Your task to perform on an android device: change the clock display to show seconds Image 0: 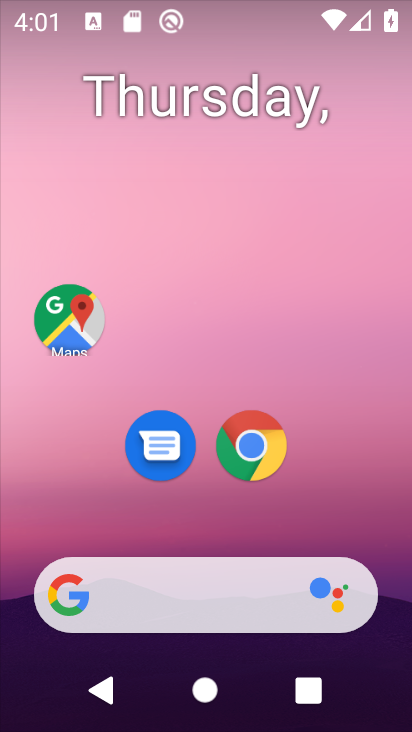
Step 0: drag from (310, 355) to (289, 50)
Your task to perform on an android device: change the clock display to show seconds Image 1: 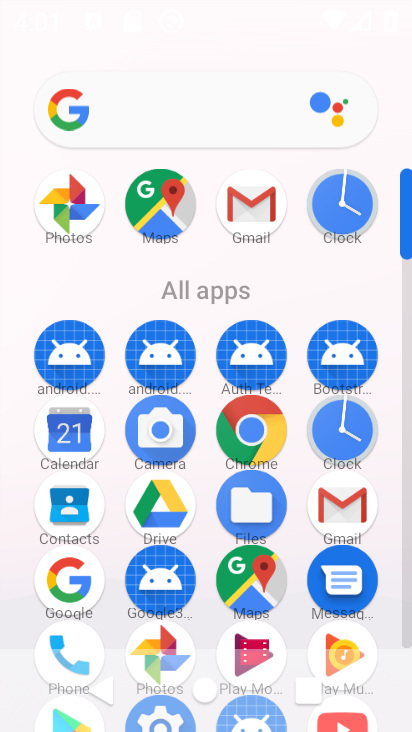
Step 1: drag from (336, 464) to (341, 0)
Your task to perform on an android device: change the clock display to show seconds Image 2: 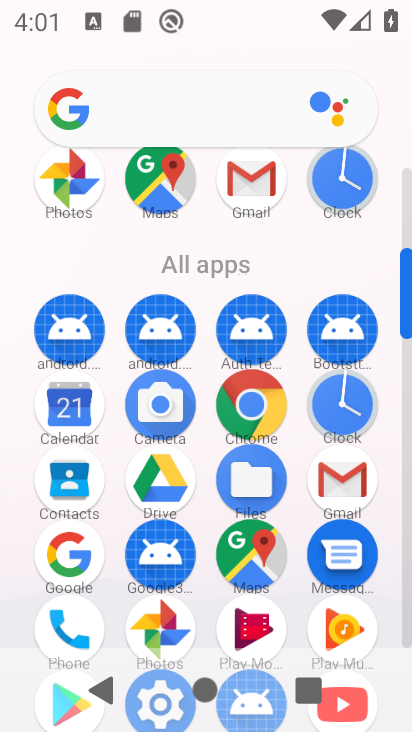
Step 2: click (348, 180)
Your task to perform on an android device: change the clock display to show seconds Image 3: 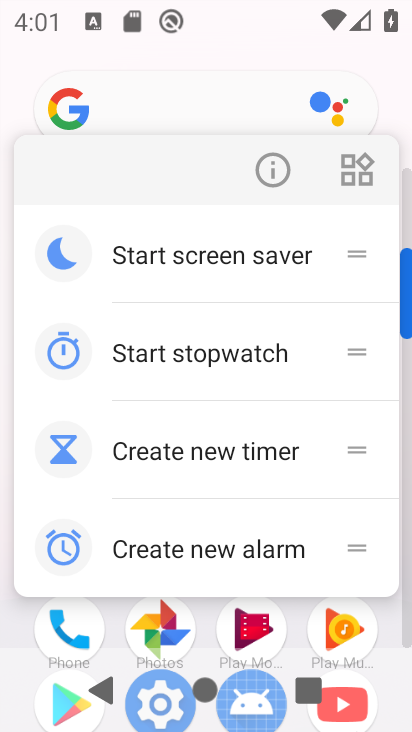
Step 3: click (400, 98)
Your task to perform on an android device: change the clock display to show seconds Image 4: 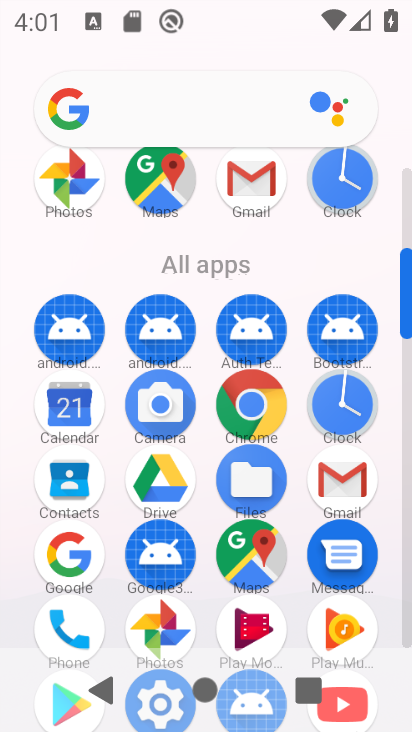
Step 4: click (349, 179)
Your task to perform on an android device: change the clock display to show seconds Image 5: 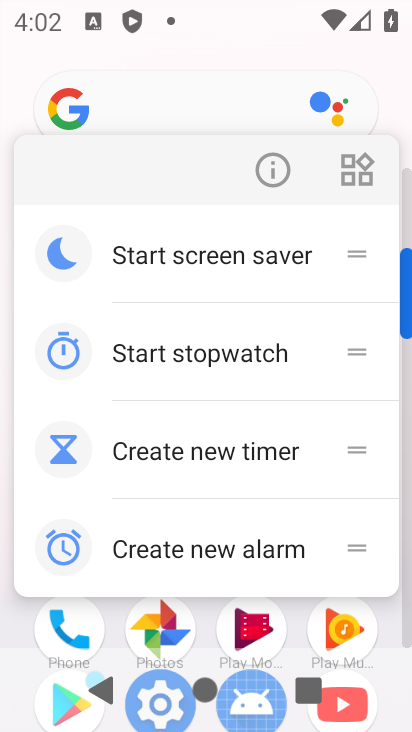
Step 5: press back button
Your task to perform on an android device: change the clock display to show seconds Image 6: 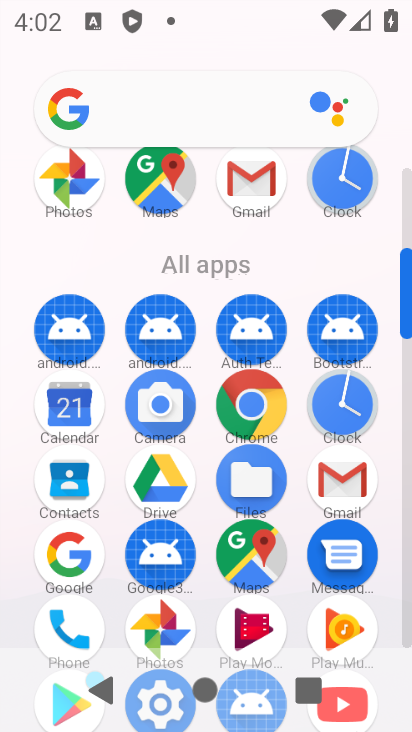
Step 6: click (333, 185)
Your task to perform on an android device: change the clock display to show seconds Image 7: 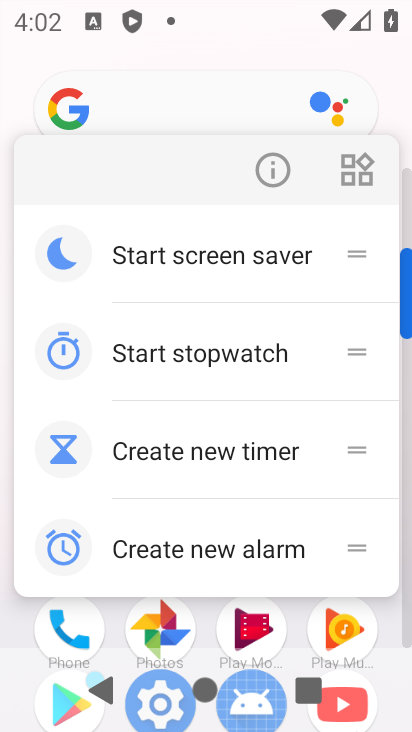
Step 7: click (383, 106)
Your task to perform on an android device: change the clock display to show seconds Image 8: 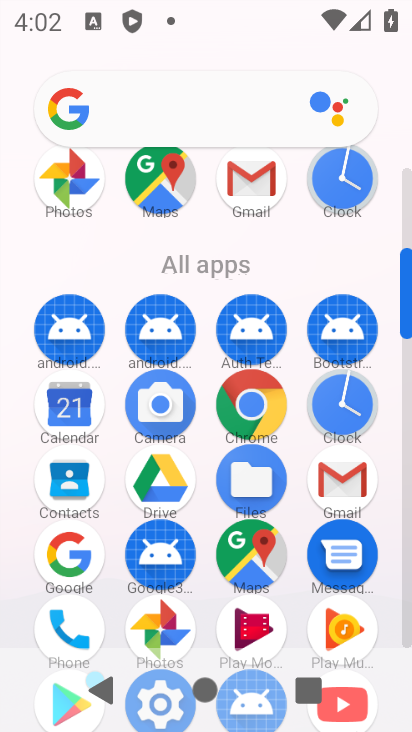
Step 8: press back button
Your task to perform on an android device: change the clock display to show seconds Image 9: 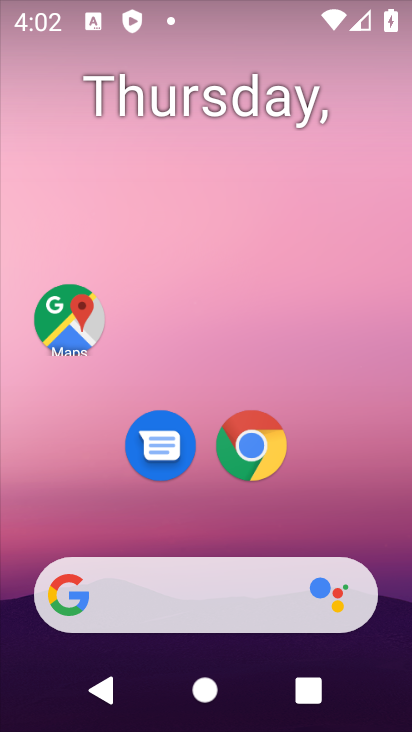
Step 9: click (327, 190)
Your task to perform on an android device: change the clock display to show seconds Image 10: 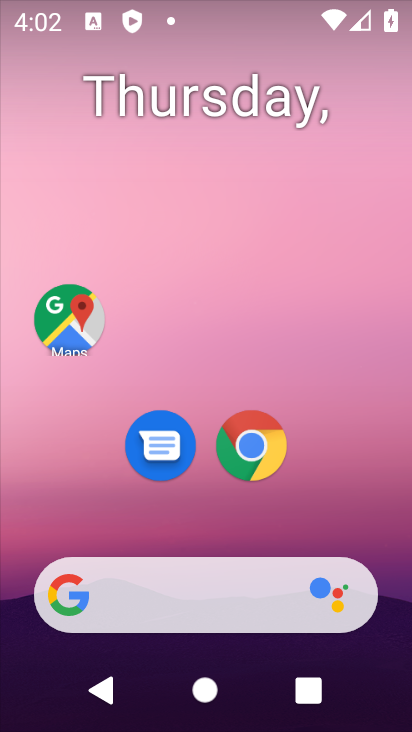
Step 10: drag from (357, 482) to (399, 127)
Your task to perform on an android device: change the clock display to show seconds Image 11: 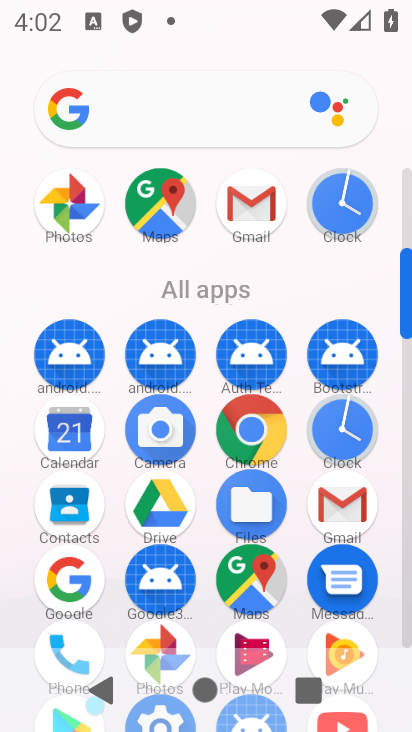
Step 11: click (350, 219)
Your task to perform on an android device: change the clock display to show seconds Image 12: 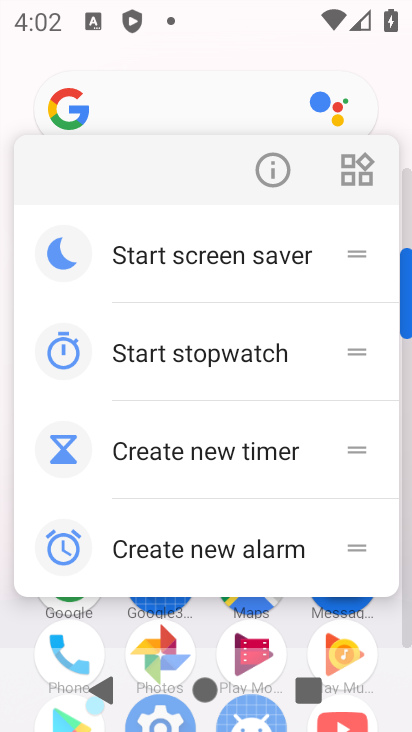
Step 12: click (230, 98)
Your task to perform on an android device: change the clock display to show seconds Image 13: 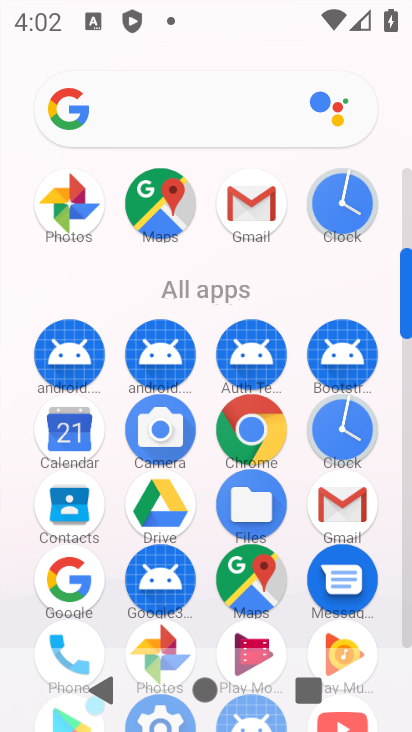
Step 13: click (324, 210)
Your task to perform on an android device: change the clock display to show seconds Image 14: 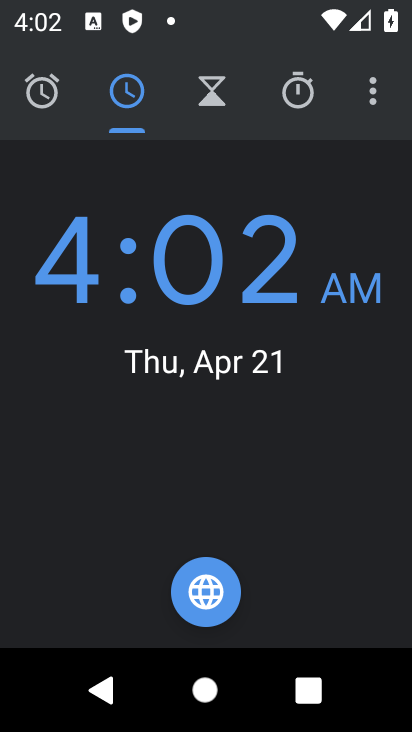
Step 14: click (372, 98)
Your task to perform on an android device: change the clock display to show seconds Image 15: 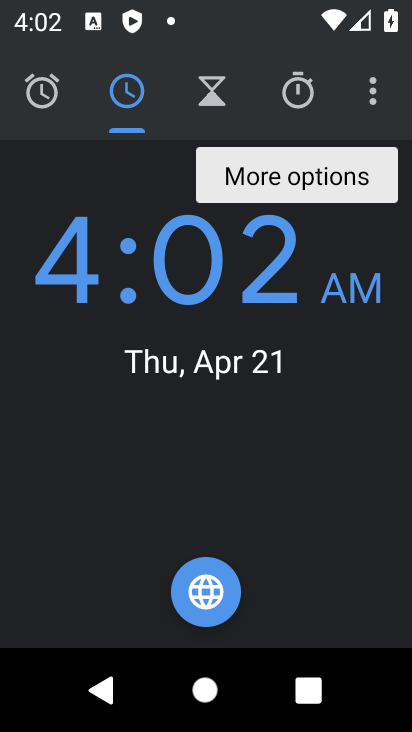
Step 15: click (371, 90)
Your task to perform on an android device: change the clock display to show seconds Image 16: 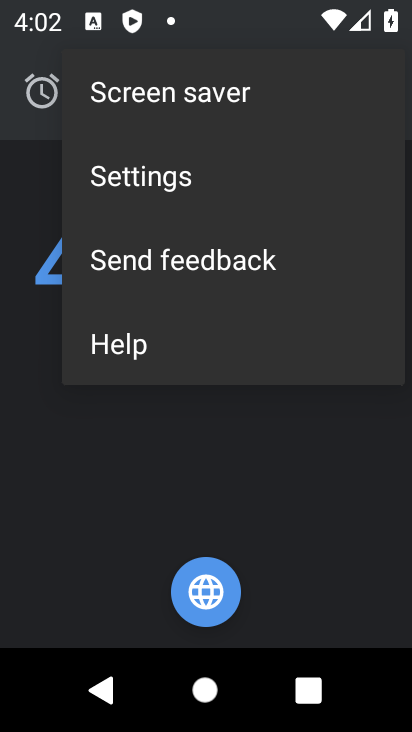
Step 16: click (200, 176)
Your task to perform on an android device: change the clock display to show seconds Image 17: 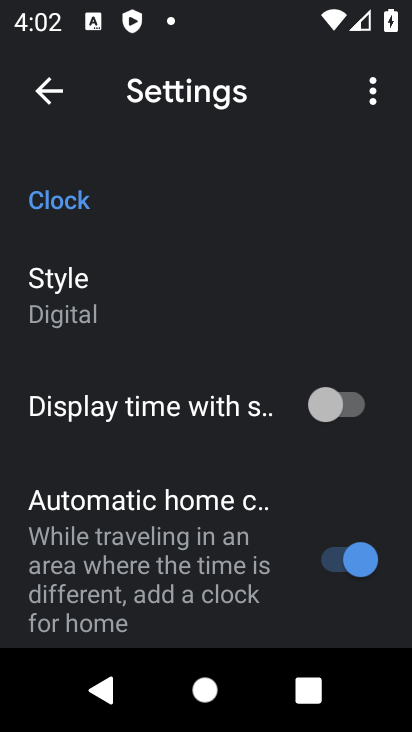
Step 17: click (345, 403)
Your task to perform on an android device: change the clock display to show seconds Image 18: 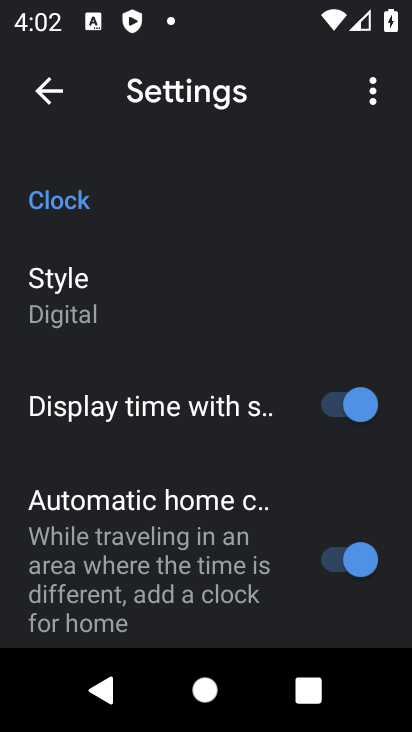
Step 18: task complete